Your task to perform on an android device: turn notification dots off Image 0: 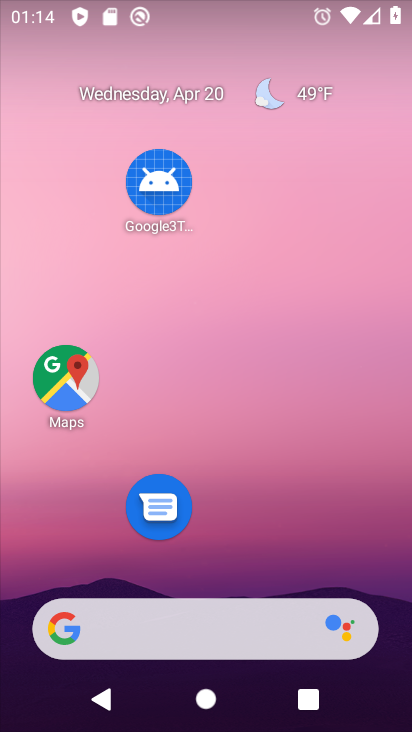
Step 0: drag from (237, 525) to (180, 1)
Your task to perform on an android device: turn notification dots off Image 1: 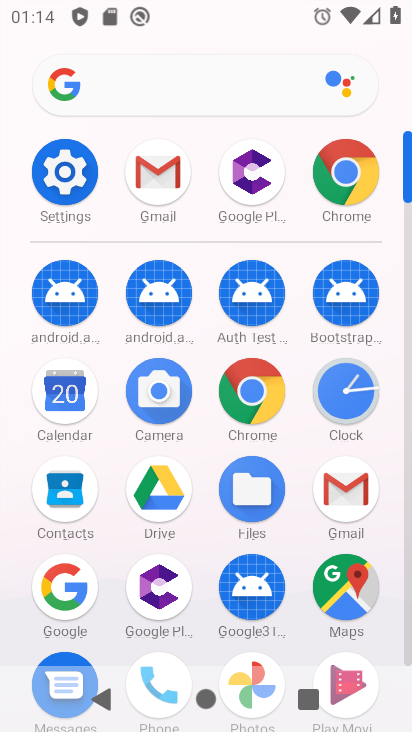
Step 1: click (62, 180)
Your task to perform on an android device: turn notification dots off Image 2: 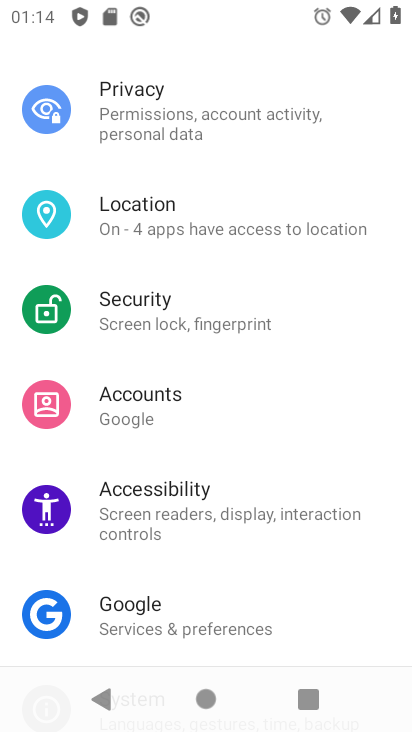
Step 2: drag from (216, 165) to (204, 538)
Your task to perform on an android device: turn notification dots off Image 3: 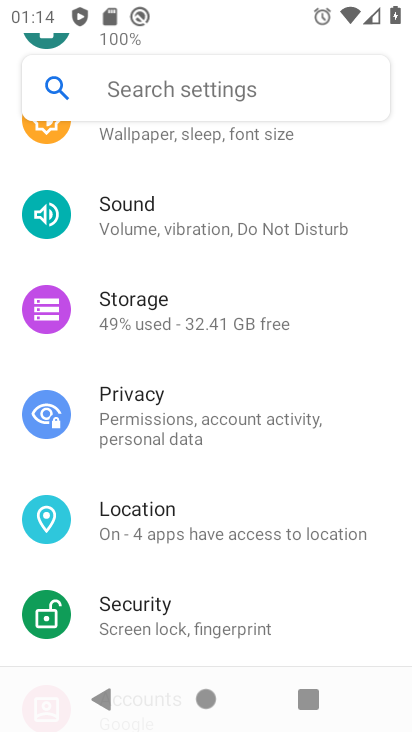
Step 3: drag from (200, 224) to (208, 634)
Your task to perform on an android device: turn notification dots off Image 4: 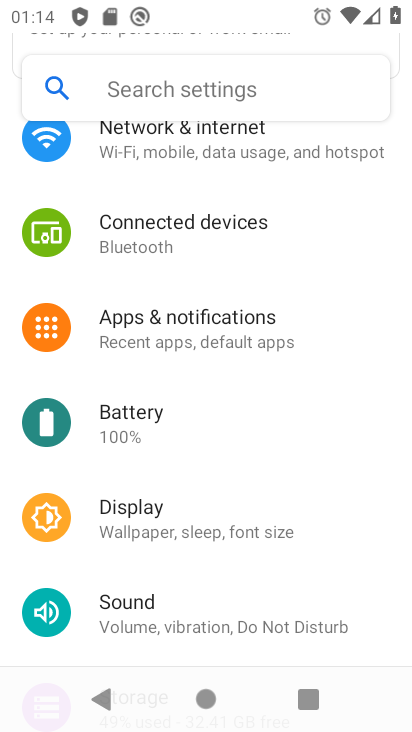
Step 4: drag from (229, 193) to (230, 534)
Your task to perform on an android device: turn notification dots off Image 5: 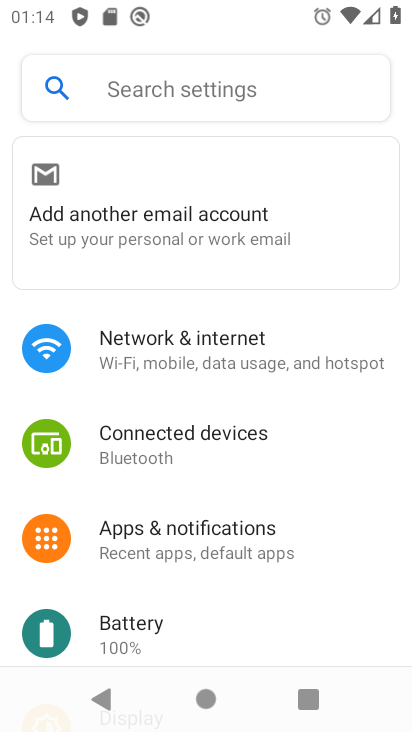
Step 5: click (176, 520)
Your task to perform on an android device: turn notification dots off Image 6: 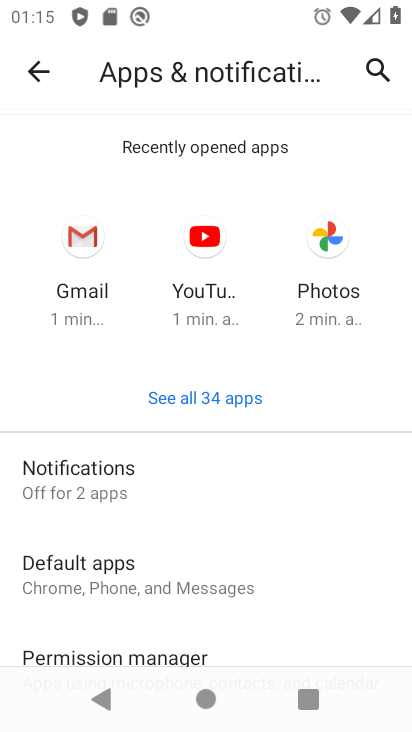
Step 6: click (57, 464)
Your task to perform on an android device: turn notification dots off Image 7: 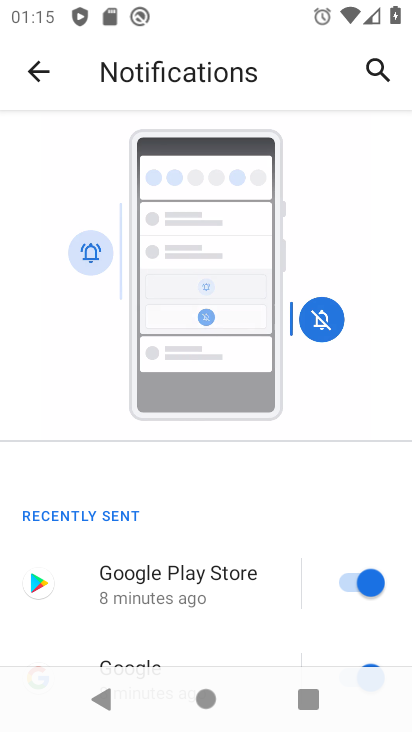
Step 7: drag from (289, 506) to (314, 222)
Your task to perform on an android device: turn notification dots off Image 8: 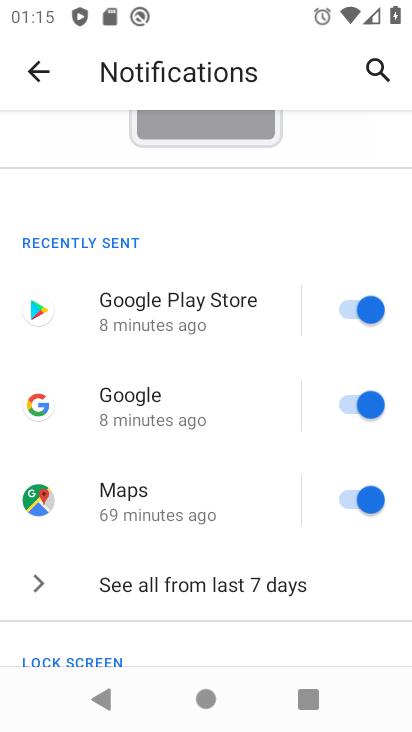
Step 8: drag from (176, 418) to (194, 258)
Your task to perform on an android device: turn notification dots off Image 9: 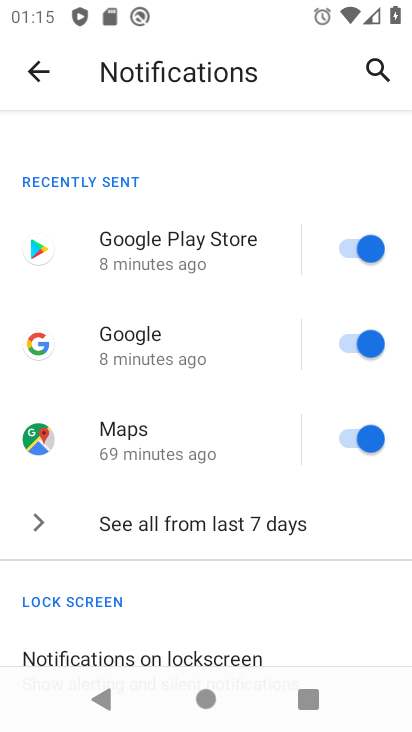
Step 9: drag from (163, 561) to (159, 300)
Your task to perform on an android device: turn notification dots off Image 10: 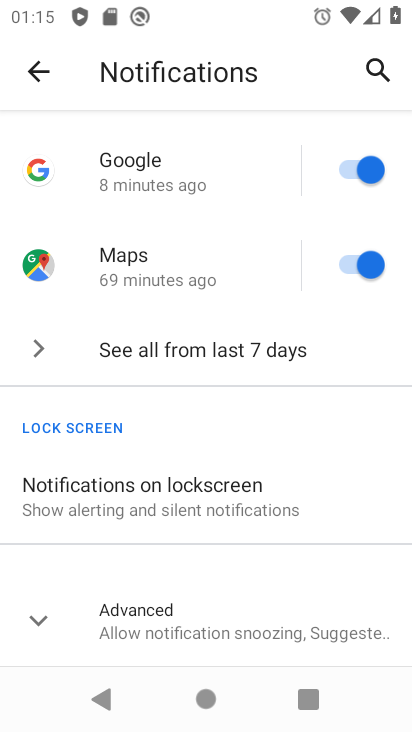
Step 10: drag from (178, 571) to (199, 311)
Your task to perform on an android device: turn notification dots off Image 11: 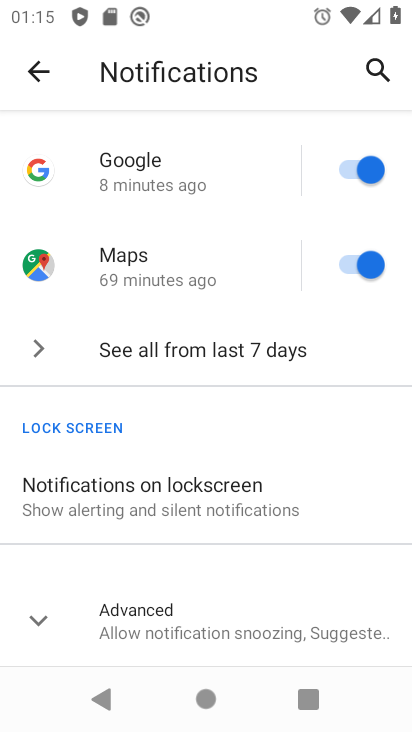
Step 11: click (35, 619)
Your task to perform on an android device: turn notification dots off Image 12: 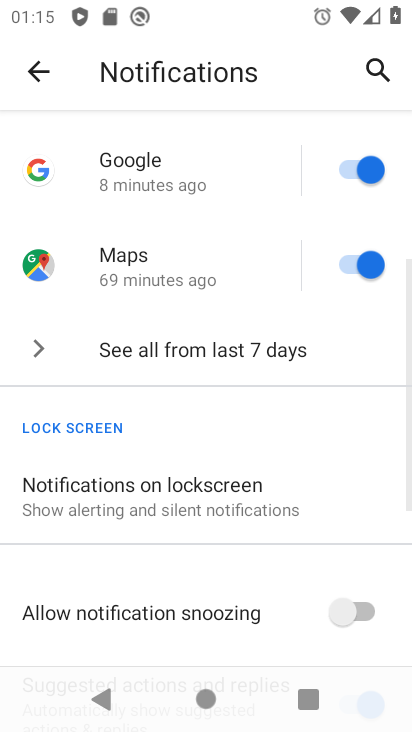
Step 12: task complete